Your task to perform on an android device: Open maps Image 0: 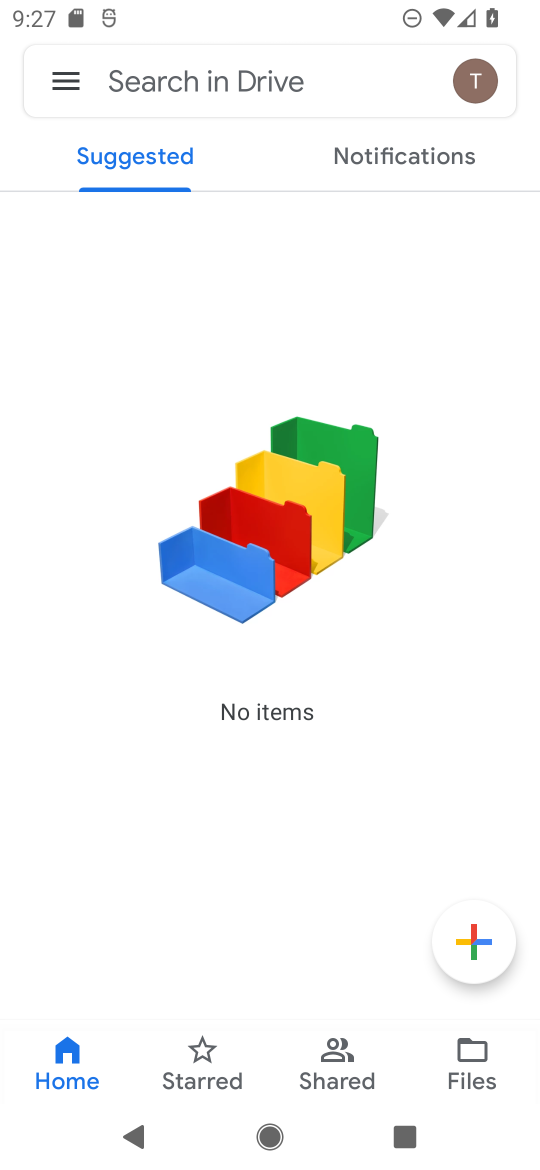
Step 0: press home button
Your task to perform on an android device: Open maps Image 1: 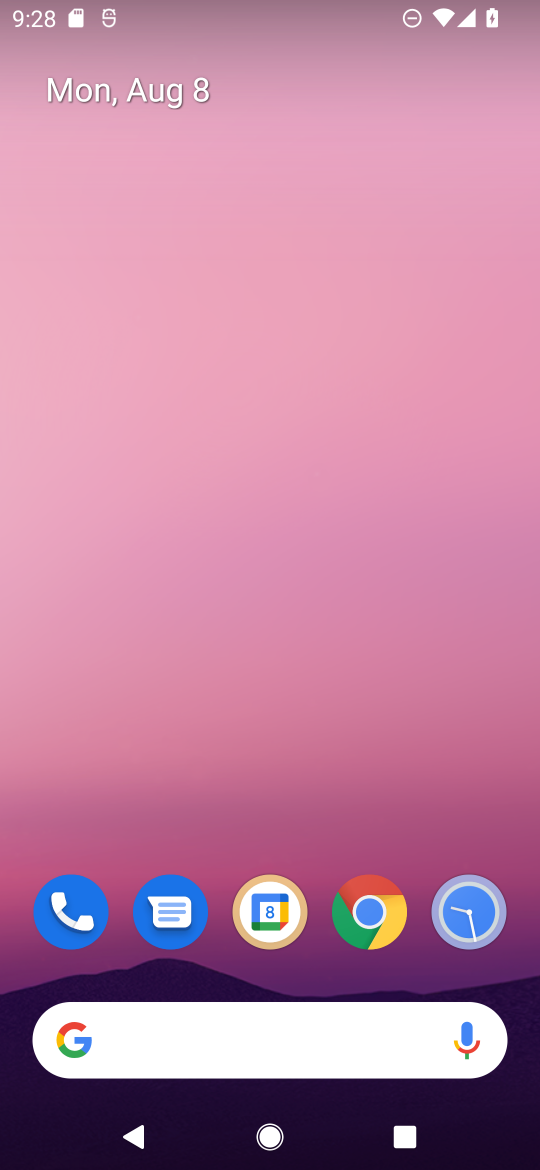
Step 1: drag from (427, 922) to (308, 24)
Your task to perform on an android device: Open maps Image 2: 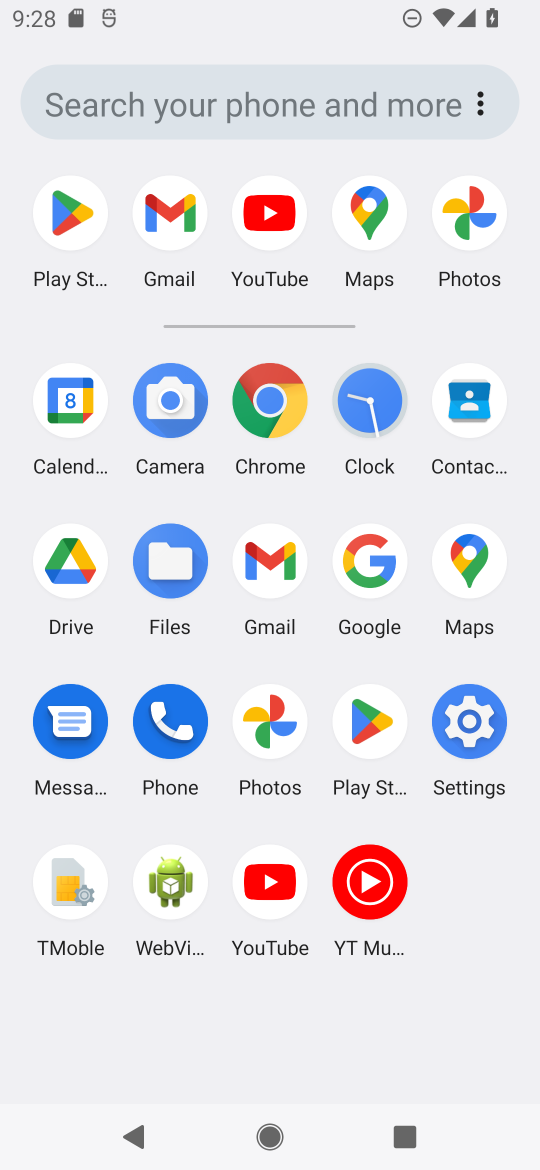
Step 2: click (473, 574)
Your task to perform on an android device: Open maps Image 3: 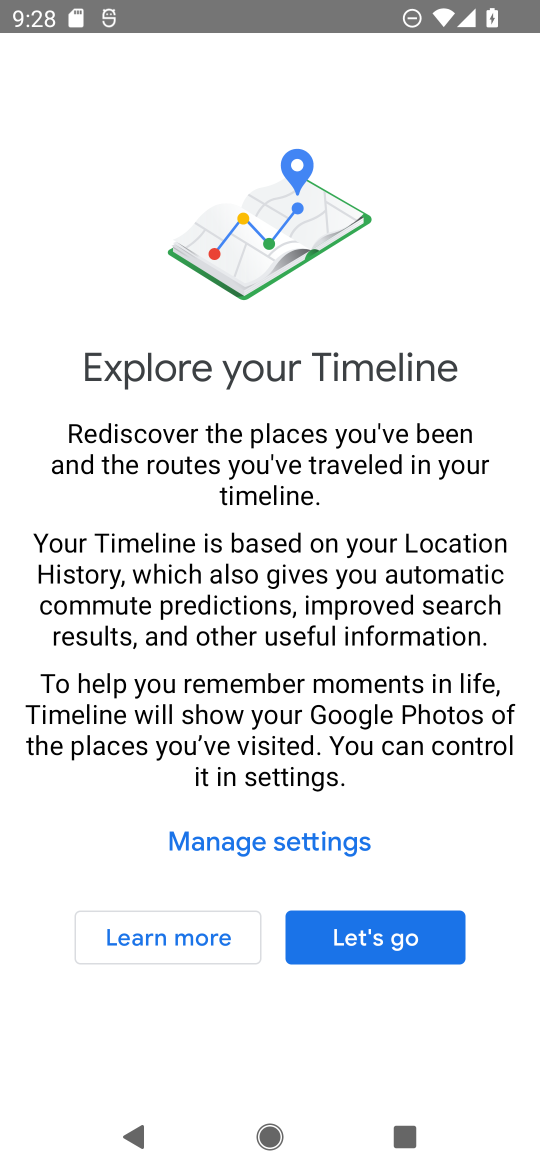
Step 3: task complete